Your task to perform on an android device: open app "AliExpress" Image 0: 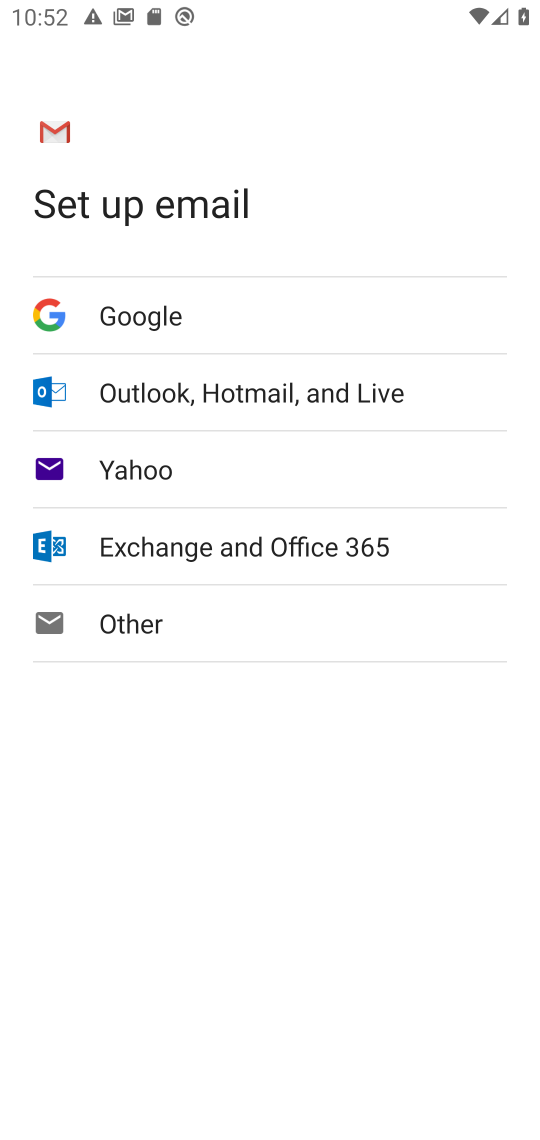
Step 0: press home button
Your task to perform on an android device: open app "AliExpress" Image 1: 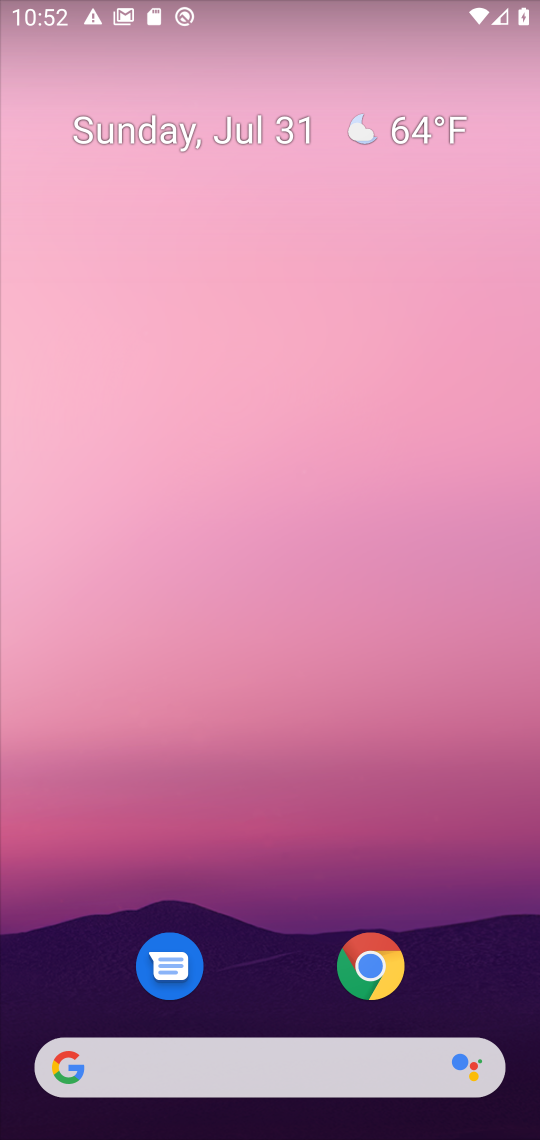
Step 1: drag from (244, 988) to (213, 212)
Your task to perform on an android device: open app "AliExpress" Image 2: 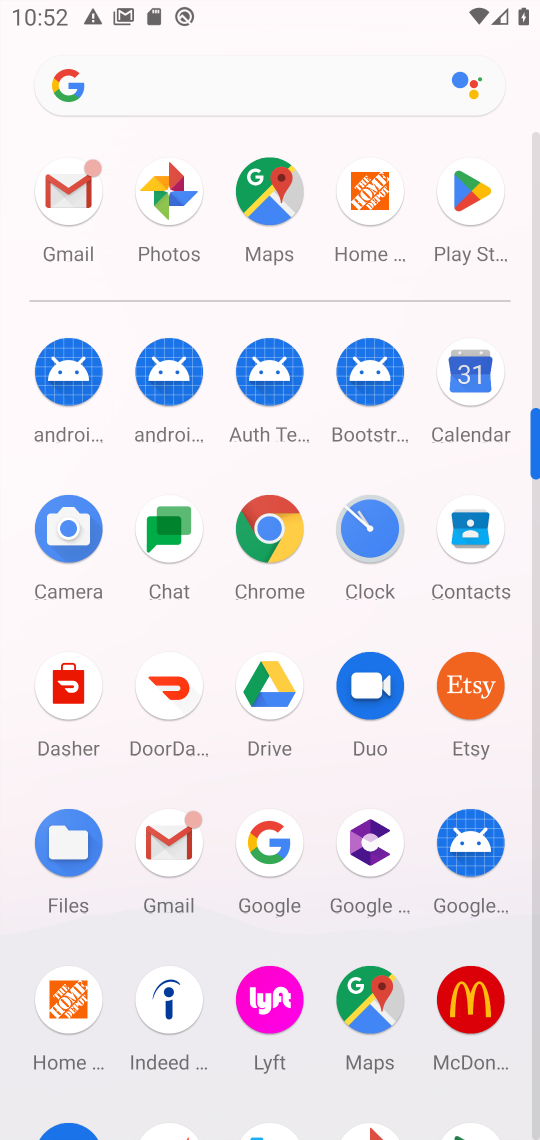
Step 2: click (469, 234)
Your task to perform on an android device: open app "AliExpress" Image 3: 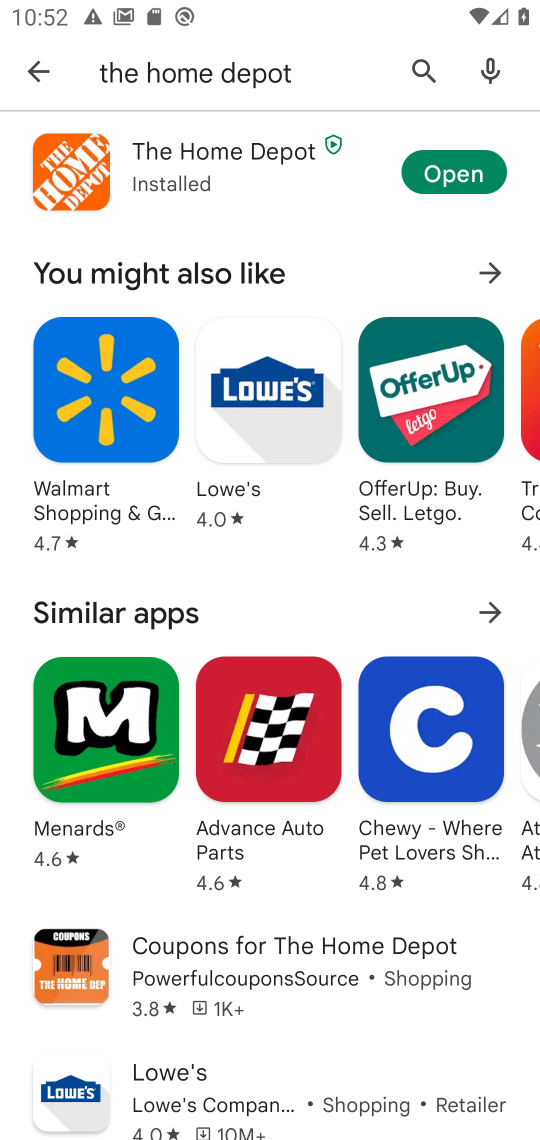
Step 3: click (297, 79)
Your task to perform on an android device: open app "AliExpress" Image 4: 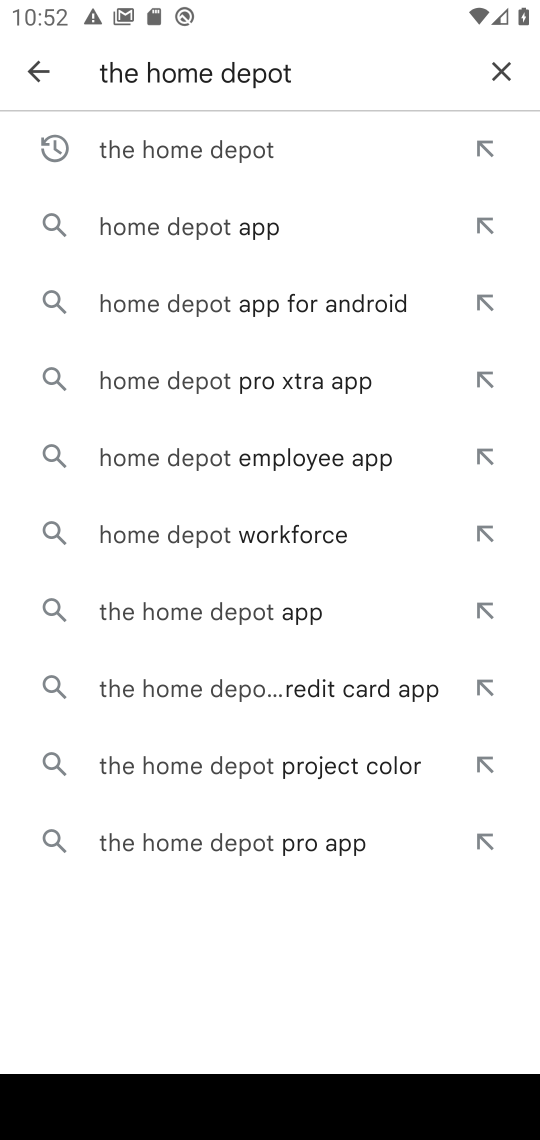
Step 4: click (500, 65)
Your task to perform on an android device: open app "AliExpress" Image 5: 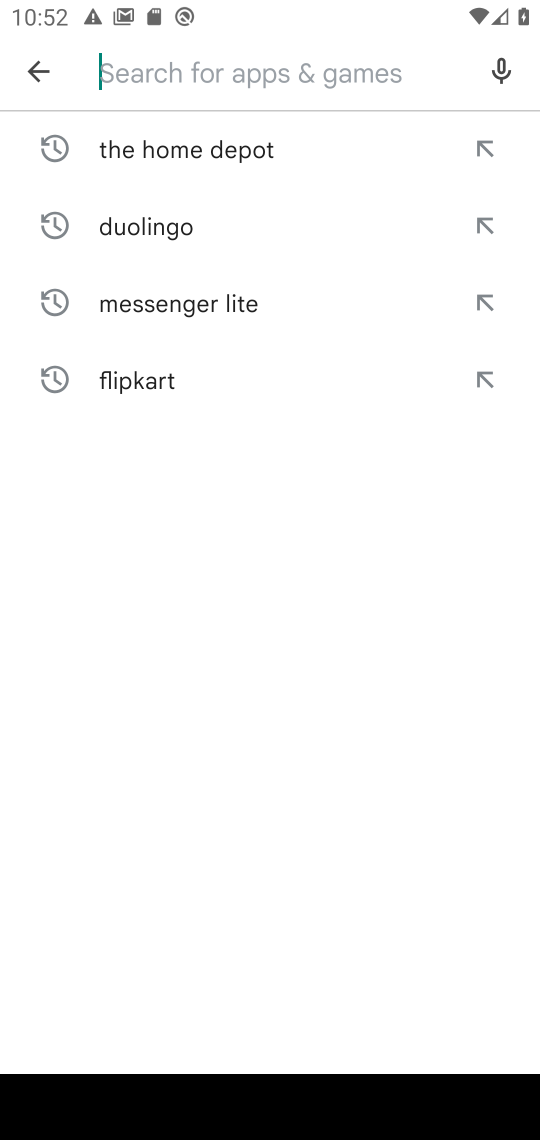
Step 5: type "Ali Express"
Your task to perform on an android device: open app "AliExpress" Image 6: 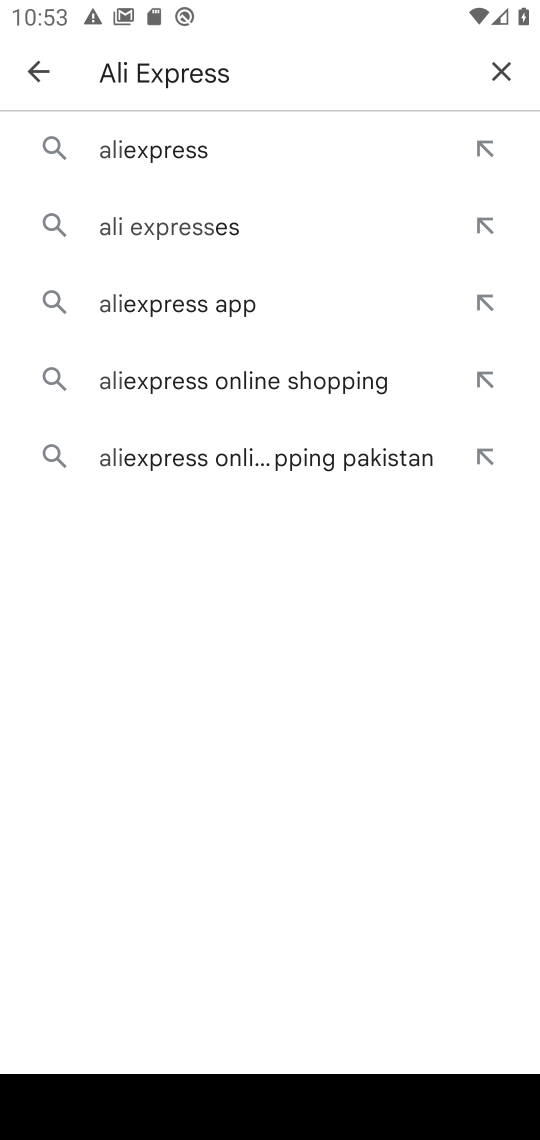
Step 6: click (162, 146)
Your task to perform on an android device: open app "AliExpress" Image 7: 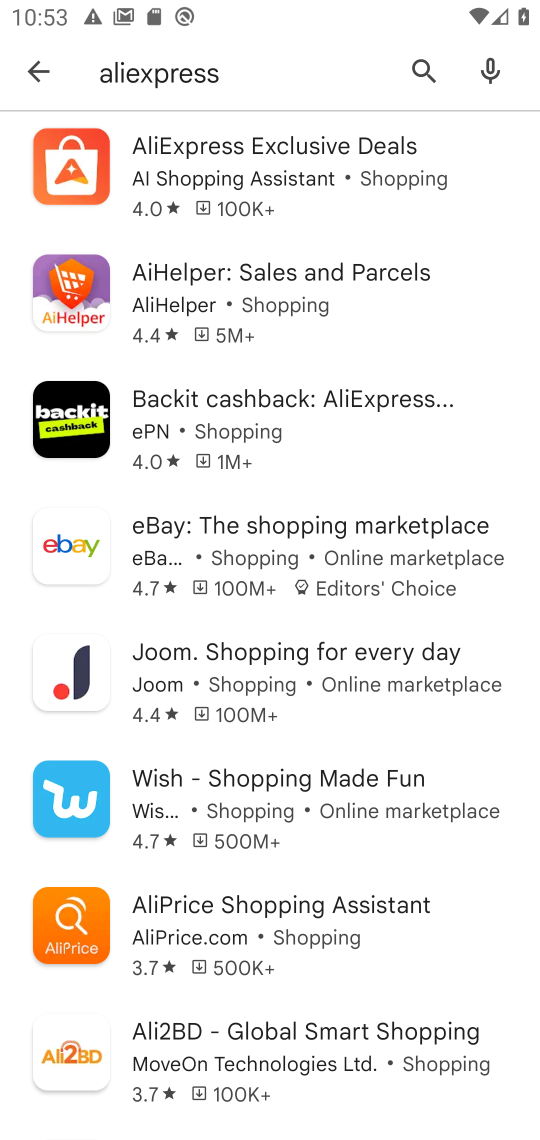
Step 7: click (222, 155)
Your task to perform on an android device: open app "AliExpress" Image 8: 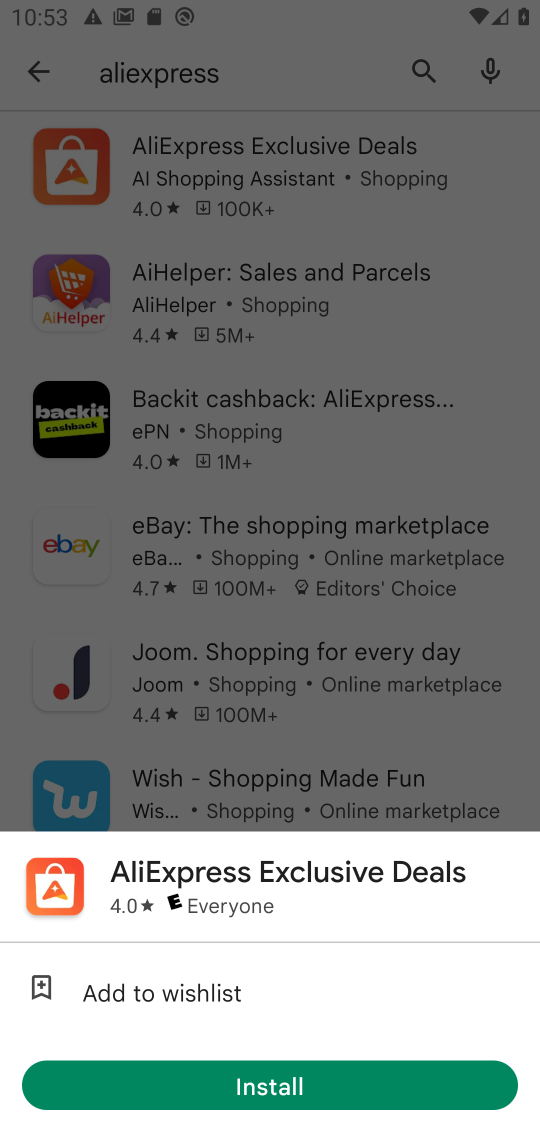
Step 8: click (68, 179)
Your task to perform on an android device: open app "AliExpress" Image 9: 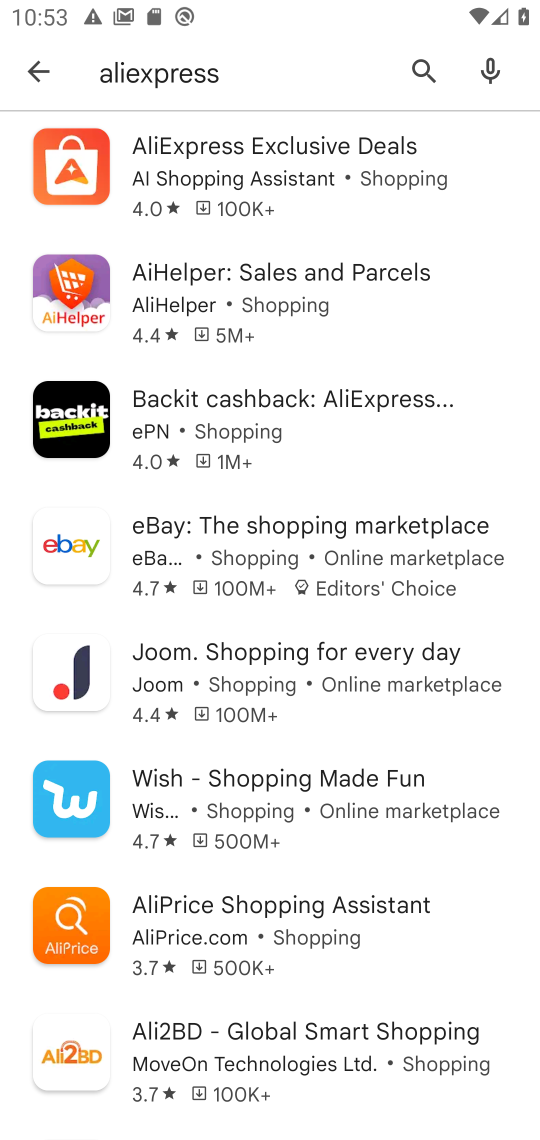
Step 9: click (141, 202)
Your task to perform on an android device: open app "AliExpress" Image 10: 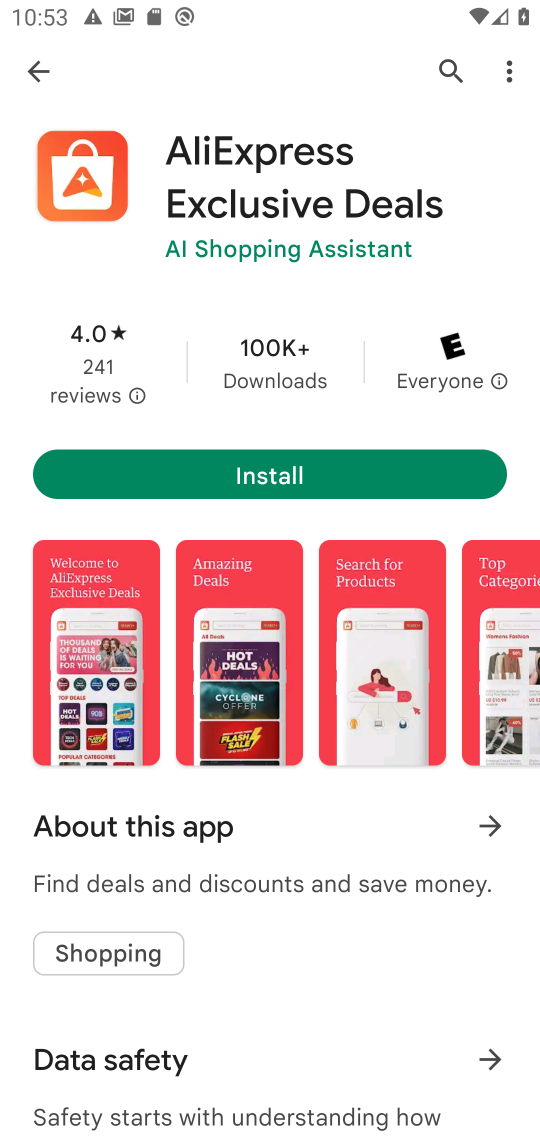
Step 10: task complete